Your task to perform on an android device: Open network settings Image 0: 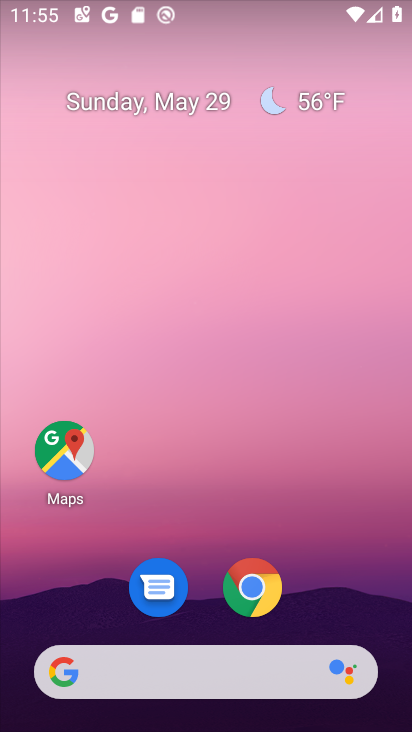
Step 0: drag from (374, 603) to (233, 140)
Your task to perform on an android device: Open network settings Image 1: 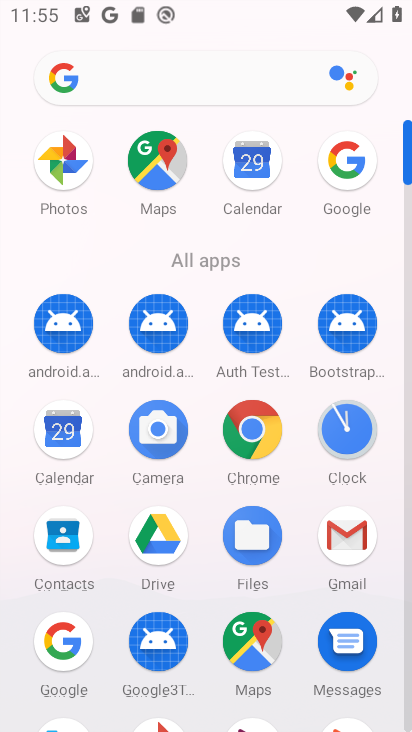
Step 1: click (409, 684)
Your task to perform on an android device: Open network settings Image 2: 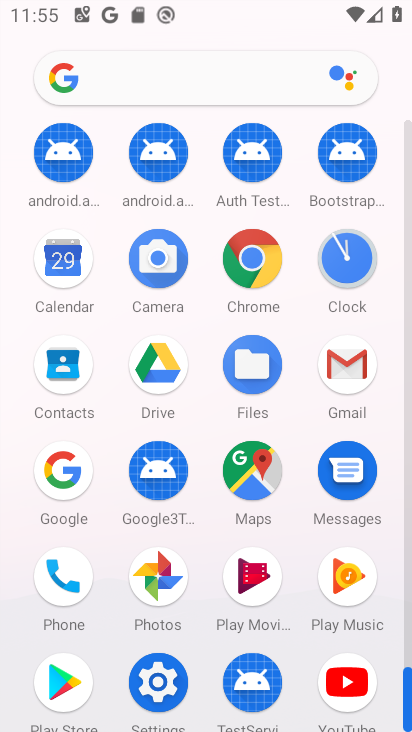
Step 2: click (171, 672)
Your task to perform on an android device: Open network settings Image 3: 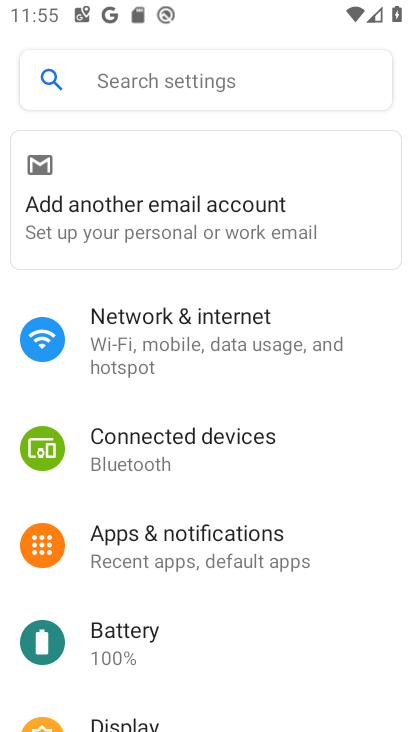
Step 3: click (244, 333)
Your task to perform on an android device: Open network settings Image 4: 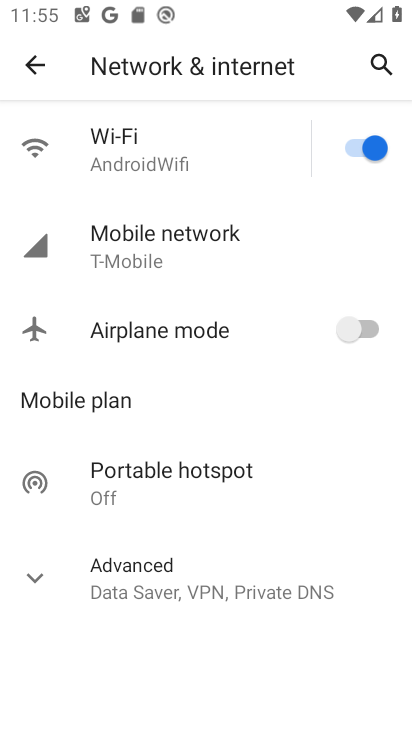
Step 4: task complete